Your task to perform on an android device: change notifications settings Image 0: 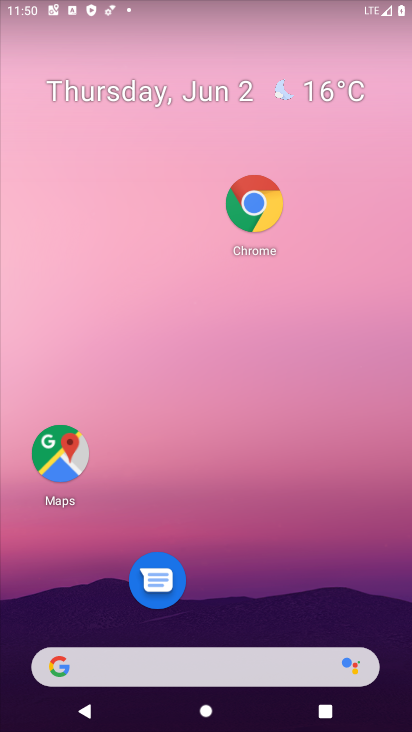
Step 0: drag from (250, 529) to (271, 186)
Your task to perform on an android device: change notifications settings Image 1: 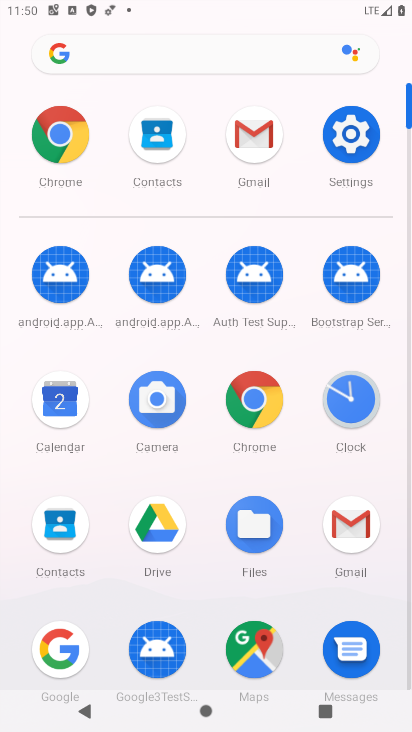
Step 1: click (351, 148)
Your task to perform on an android device: change notifications settings Image 2: 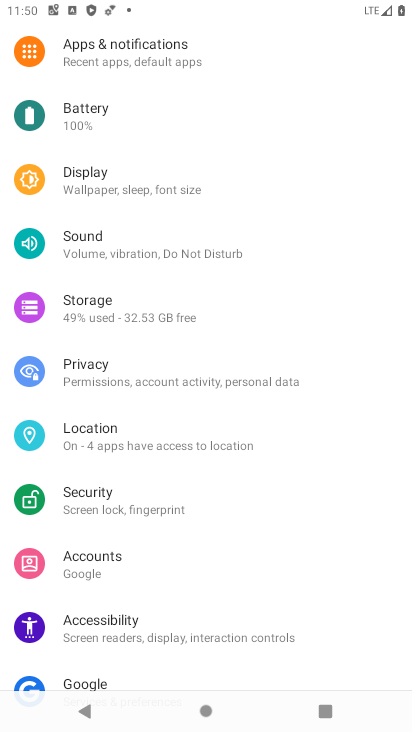
Step 2: drag from (186, 225) to (142, 517)
Your task to perform on an android device: change notifications settings Image 3: 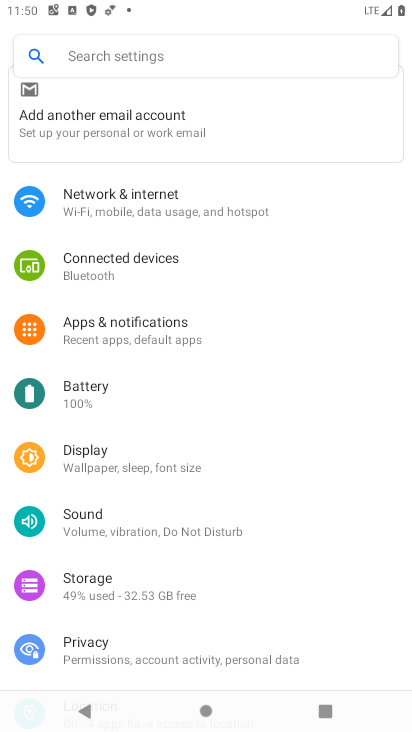
Step 3: click (182, 325)
Your task to perform on an android device: change notifications settings Image 4: 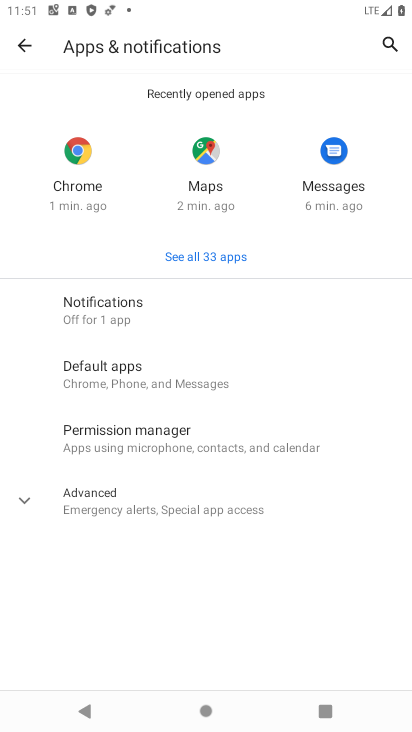
Step 4: click (179, 315)
Your task to perform on an android device: change notifications settings Image 5: 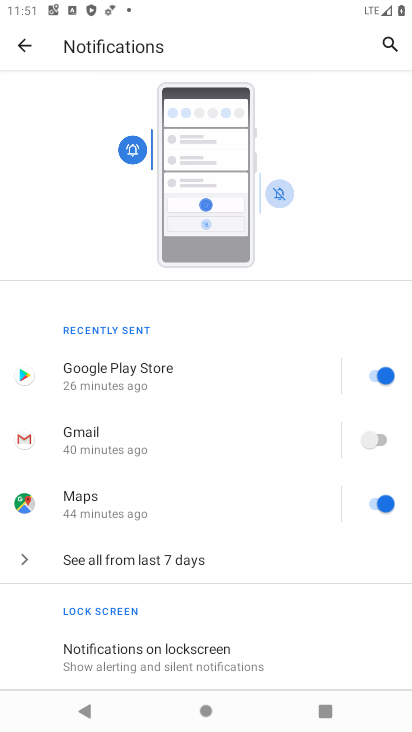
Step 5: click (388, 440)
Your task to perform on an android device: change notifications settings Image 6: 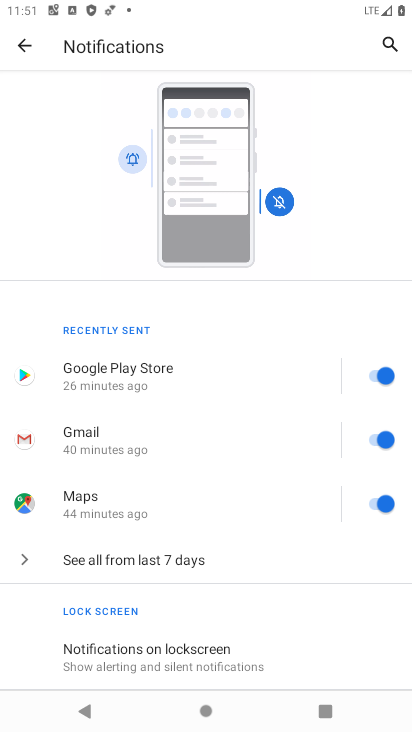
Step 6: task complete